Your task to perform on an android device: check google app version Image 0: 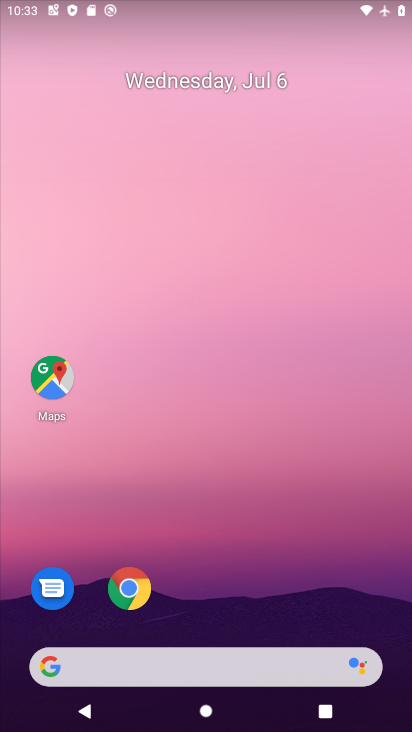
Step 0: drag from (137, 676) to (226, 60)
Your task to perform on an android device: check google app version Image 1: 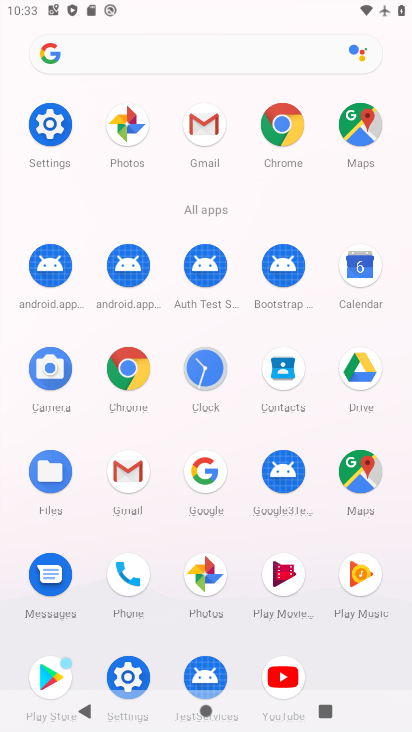
Step 1: click (211, 460)
Your task to perform on an android device: check google app version Image 2: 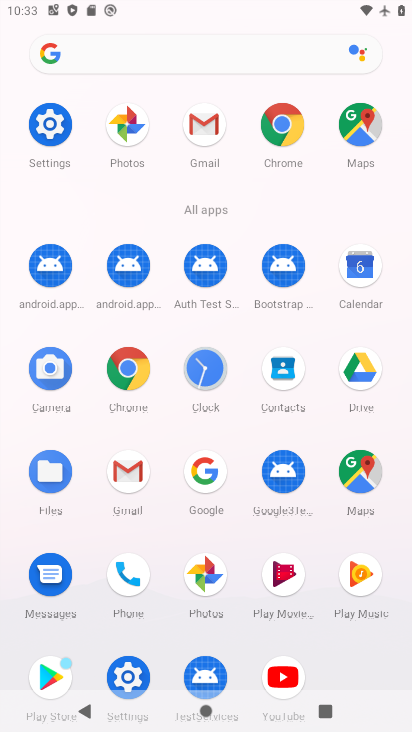
Step 2: click (312, 227)
Your task to perform on an android device: check google app version Image 3: 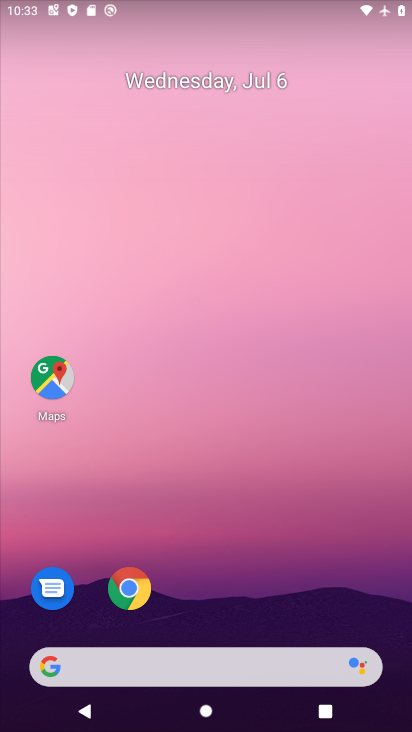
Step 3: drag from (178, 682) to (309, 5)
Your task to perform on an android device: check google app version Image 4: 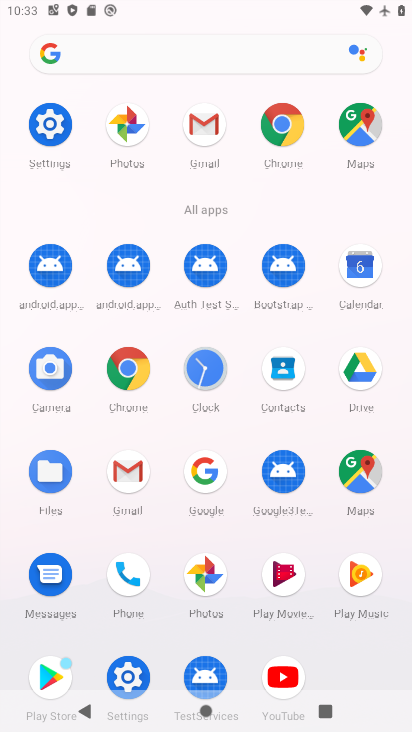
Step 4: click (203, 469)
Your task to perform on an android device: check google app version Image 5: 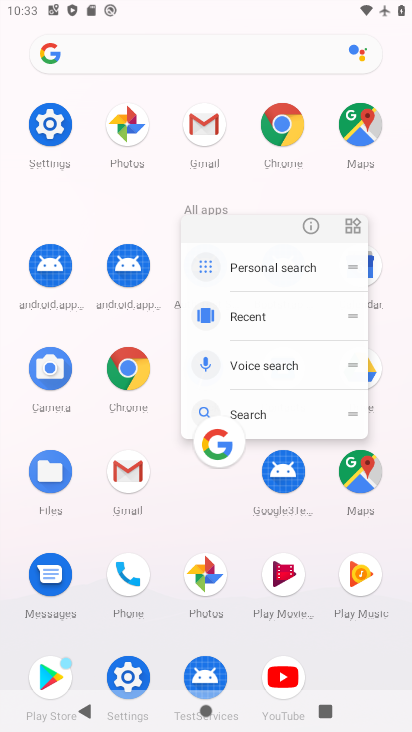
Step 5: click (315, 227)
Your task to perform on an android device: check google app version Image 6: 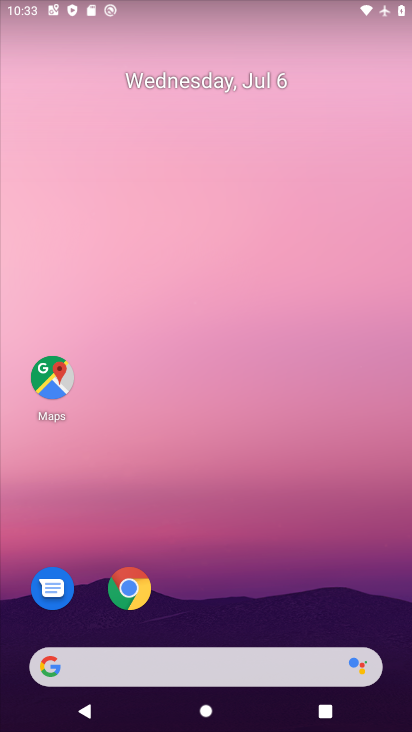
Step 6: drag from (216, 682) to (313, 3)
Your task to perform on an android device: check google app version Image 7: 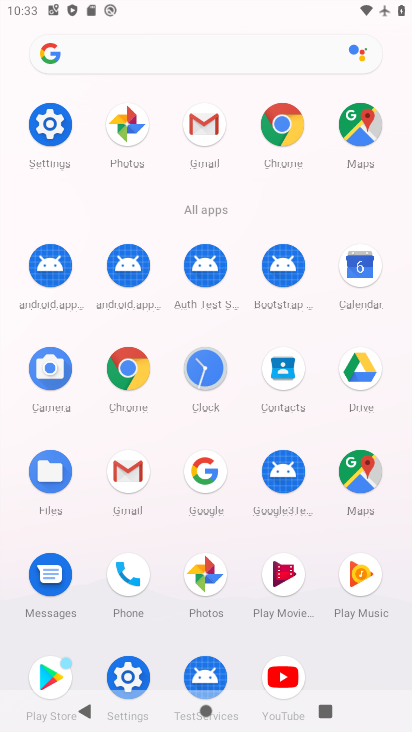
Step 7: drag from (207, 477) to (207, 423)
Your task to perform on an android device: check google app version Image 8: 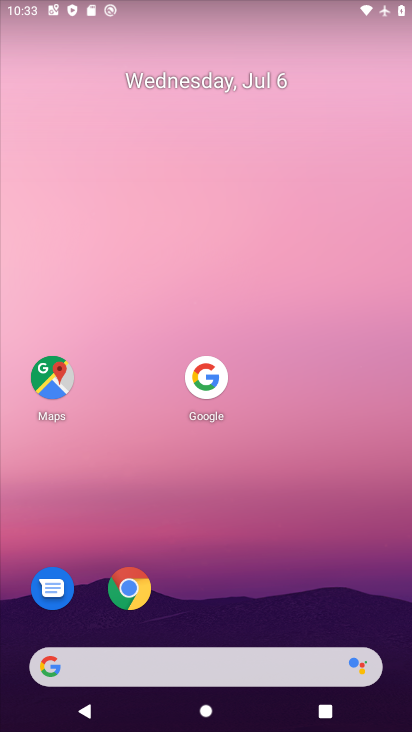
Step 8: click (211, 377)
Your task to perform on an android device: check google app version Image 9: 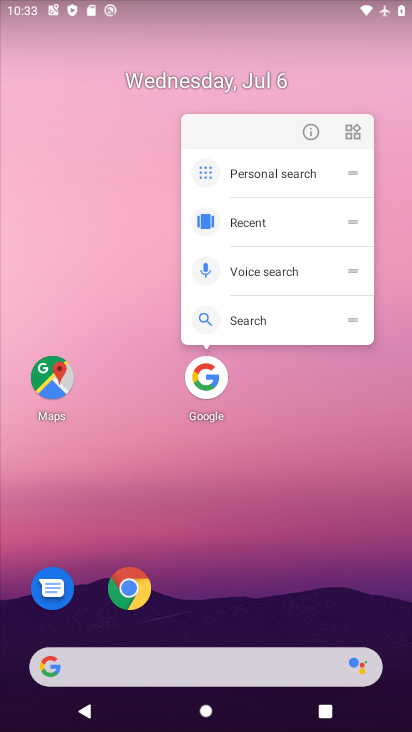
Step 9: click (314, 130)
Your task to perform on an android device: check google app version Image 10: 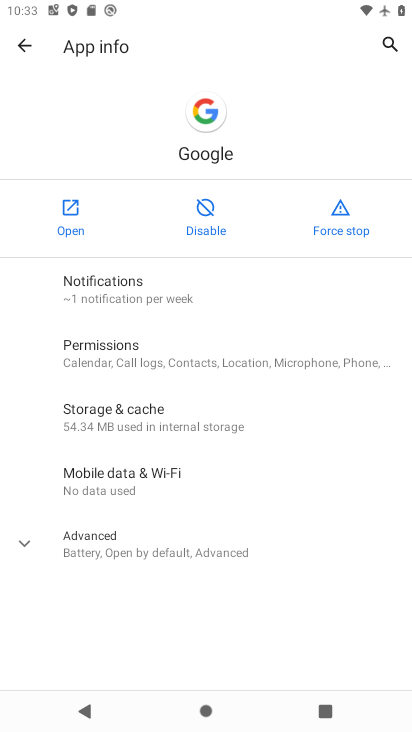
Step 10: click (136, 547)
Your task to perform on an android device: check google app version Image 11: 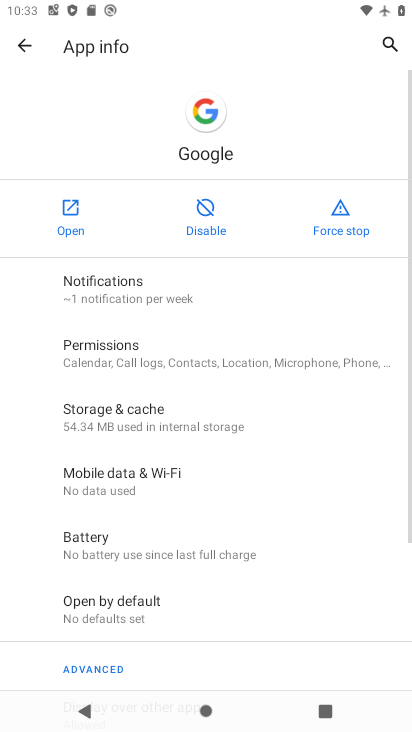
Step 11: task complete